Your task to perform on an android device: What's the weather today? Image 0: 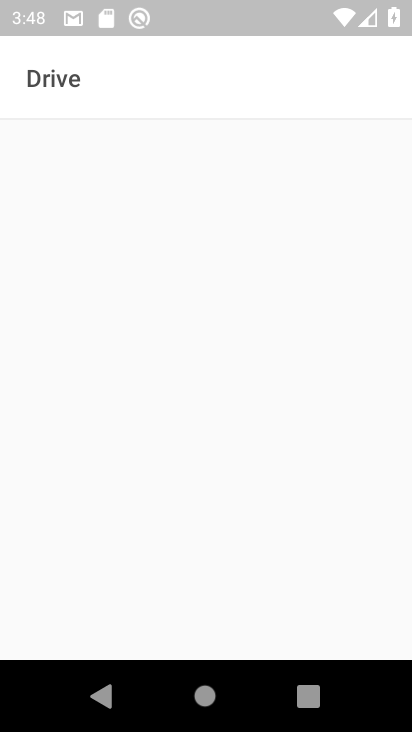
Step 0: press home button
Your task to perform on an android device: What's the weather today? Image 1: 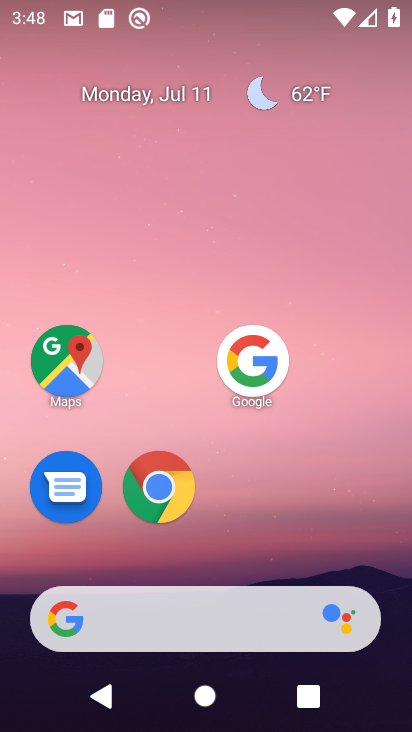
Step 1: click (297, 96)
Your task to perform on an android device: What's the weather today? Image 2: 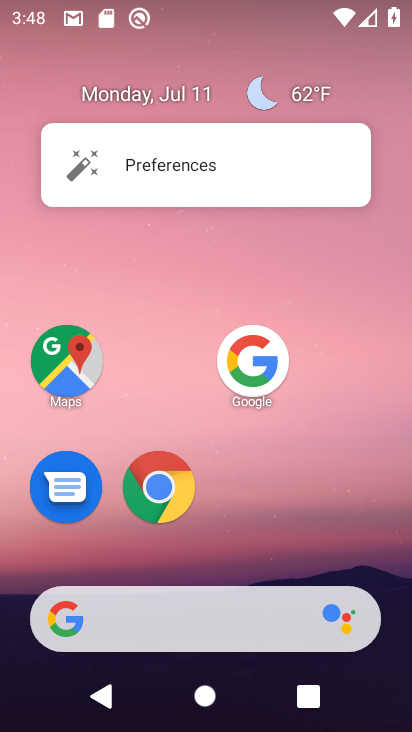
Step 2: click (297, 96)
Your task to perform on an android device: What's the weather today? Image 3: 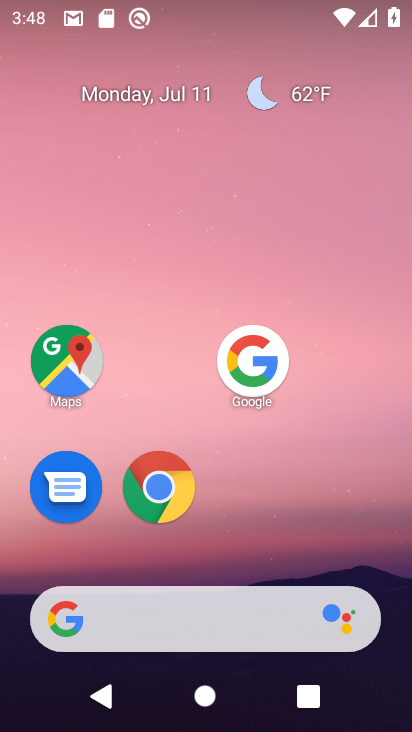
Step 3: click (308, 92)
Your task to perform on an android device: What's the weather today? Image 4: 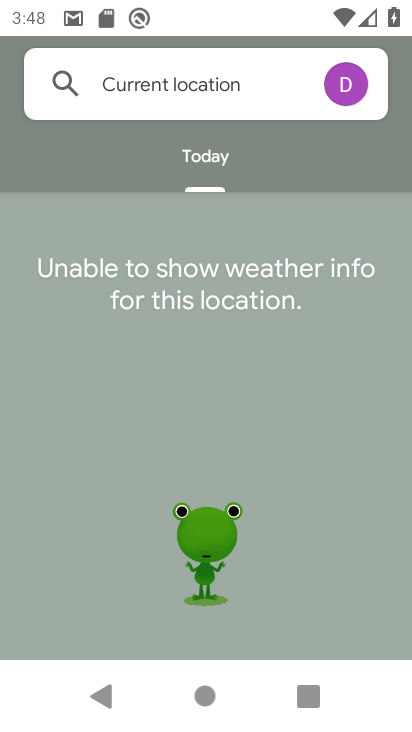
Step 4: task complete